Your task to perform on an android device: turn notification dots on Image 0: 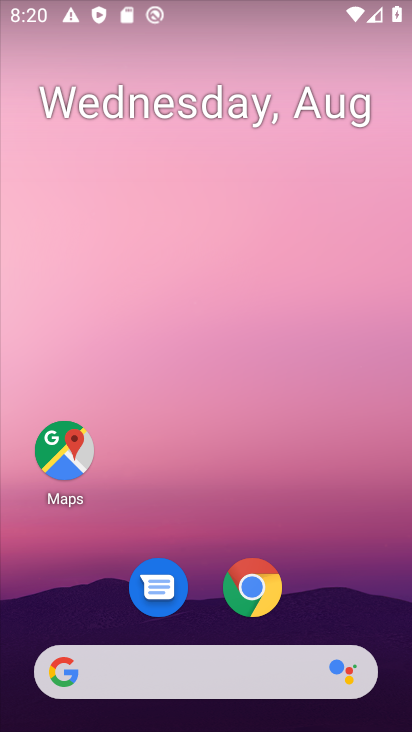
Step 0: drag from (283, 608) to (206, 43)
Your task to perform on an android device: turn notification dots on Image 1: 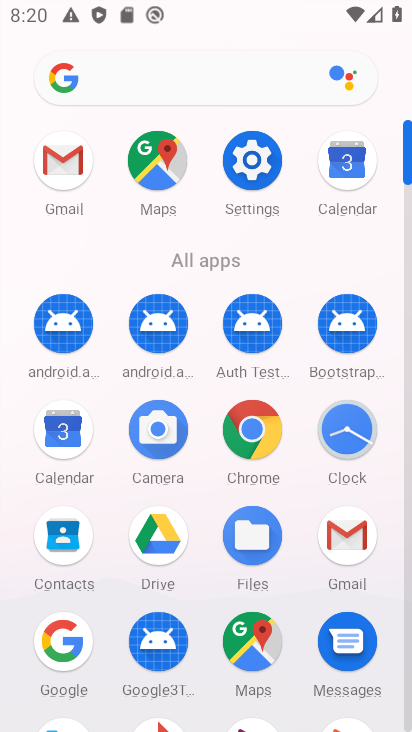
Step 1: click (247, 154)
Your task to perform on an android device: turn notification dots on Image 2: 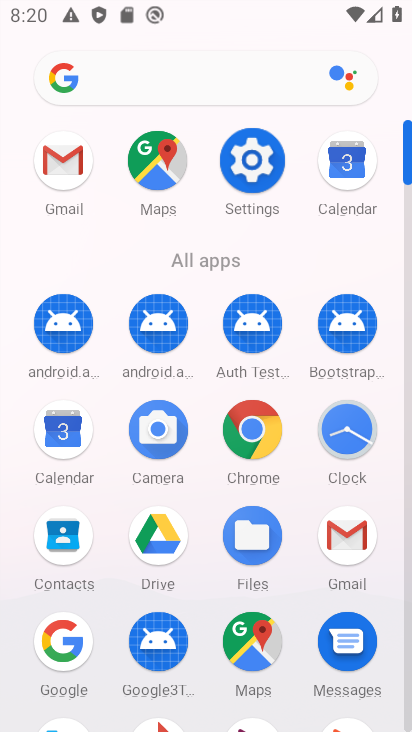
Step 2: click (253, 170)
Your task to perform on an android device: turn notification dots on Image 3: 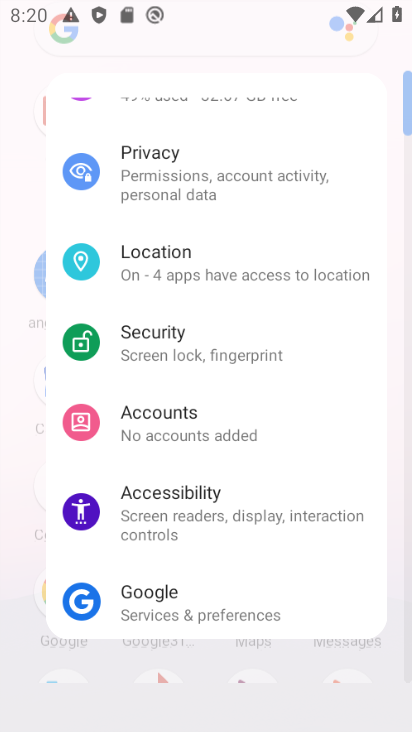
Step 3: click (253, 170)
Your task to perform on an android device: turn notification dots on Image 4: 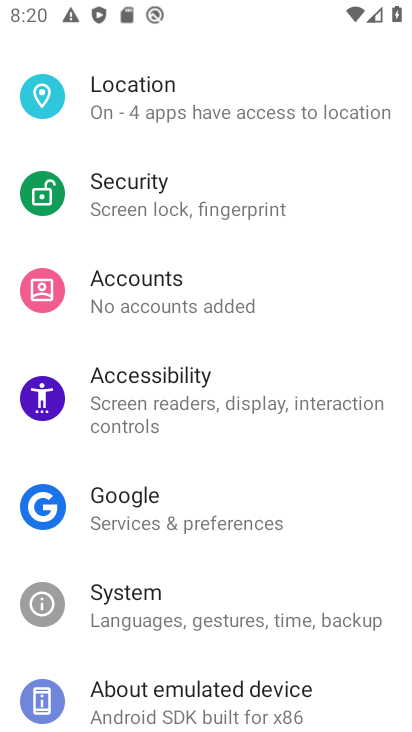
Step 4: click (252, 171)
Your task to perform on an android device: turn notification dots on Image 5: 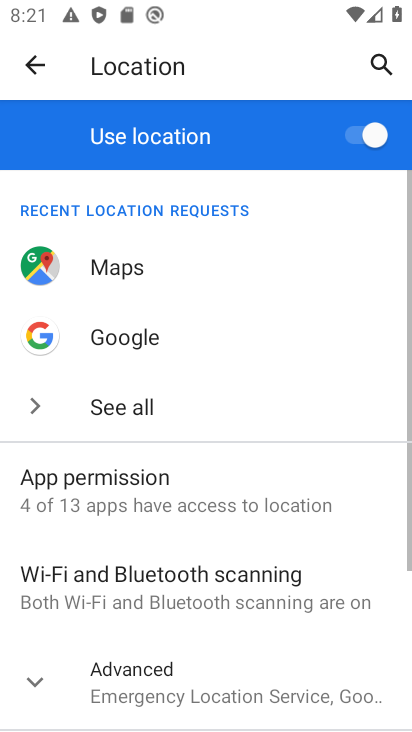
Step 5: drag from (211, 634) to (233, 280)
Your task to perform on an android device: turn notification dots on Image 6: 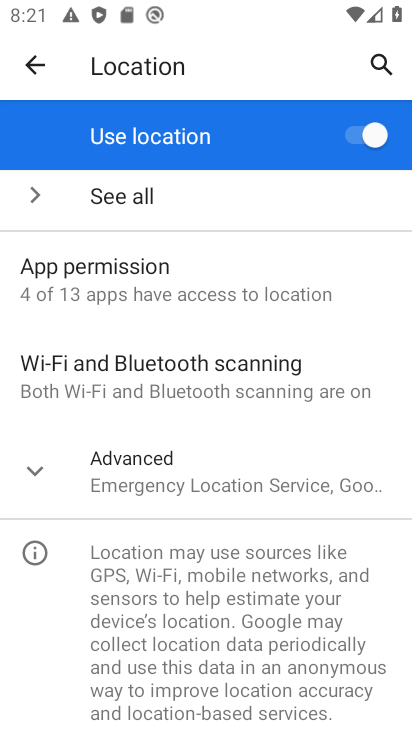
Step 6: click (144, 479)
Your task to perform on an android device: turn notification dots on Image 7: 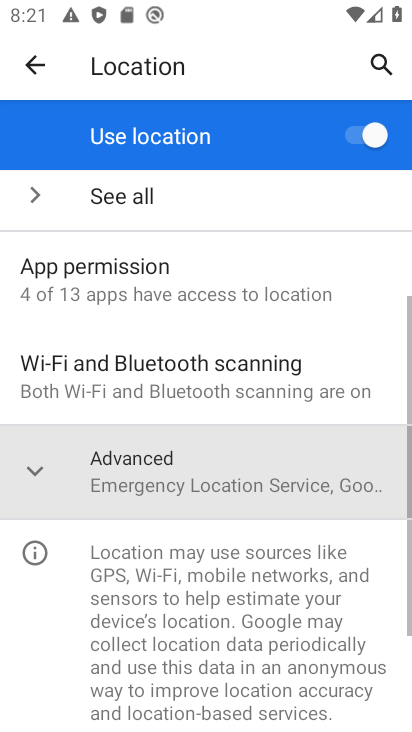
Step 7: click (143, 479)
Your task to perform on an android device: turn notification dots on Image 8: 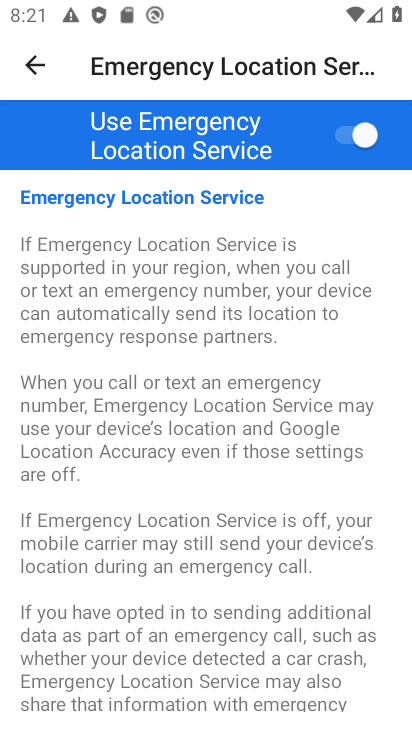
Step 8: click (32, 63)
Your task to perform on an android device: turn notification dots on Image 9: 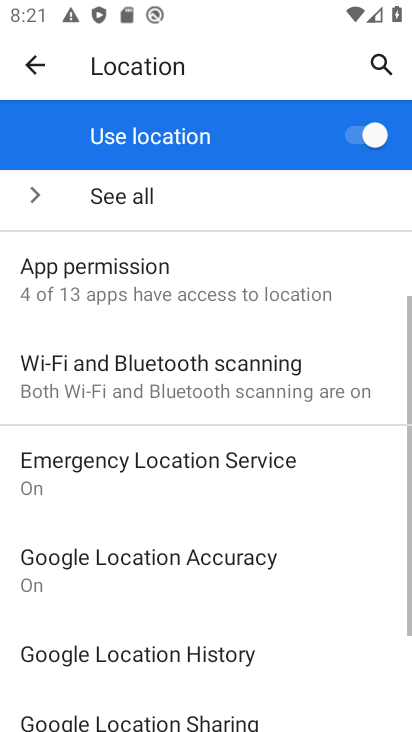
Step 9: drag from (227, 601) to (255, 236)
Your task to perform on an android device: turn notification dots on Image 10: 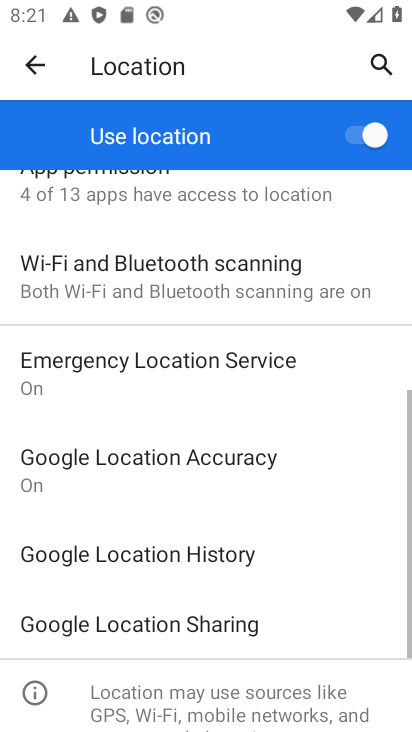
Step 10: drag from (250, 654) to (266, 272)
Your task to perform on an android device: turn notification dots on Image 11: 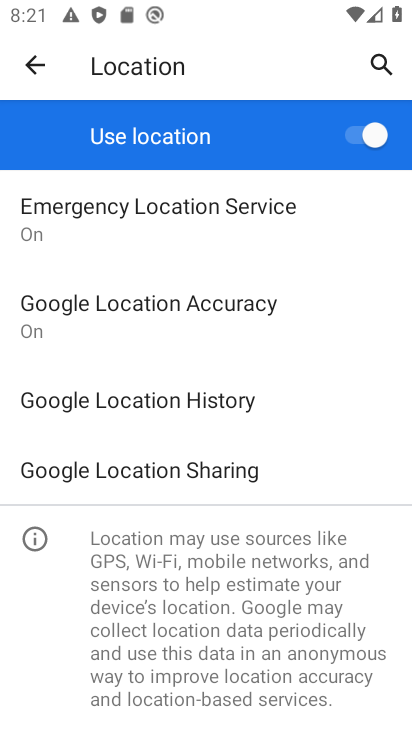
Step 11: drag from (170, 276) to (199, 520)
Your task to perform on an android device: turn notification dots on Image 12: 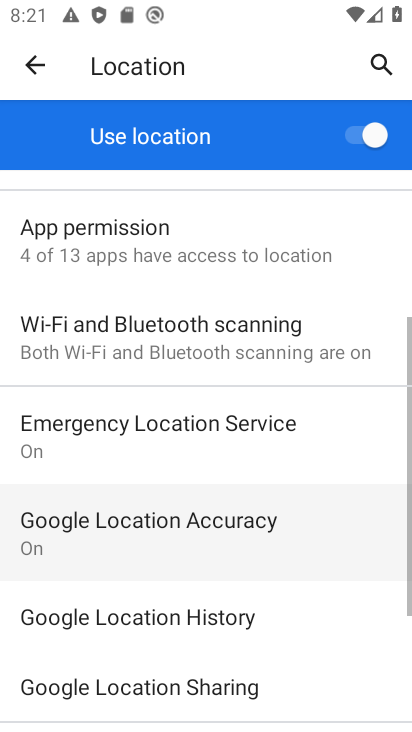
Step 12: drag from (176, 272) to (185, 494)
Your task to perform on an android device: turn notification dots on Image 13: 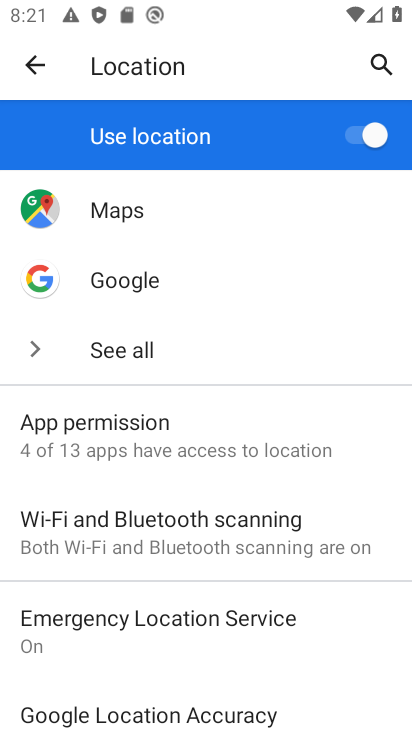
Step 13: click (39, 66)
Your task to perform on an android device: turn notification dots on Image 14: 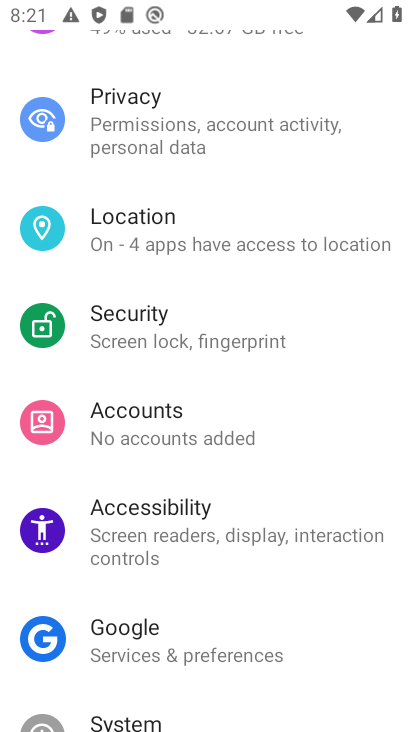
Step 14: drag from (168, 223) to (223, 495)
Your task to perform on an android device: turn notification dots on Image 15: 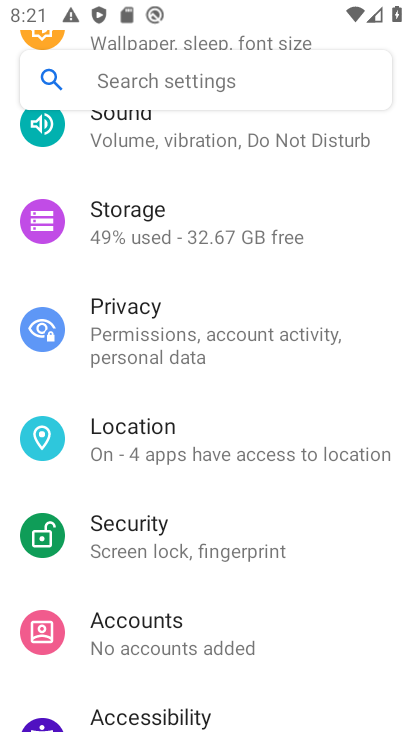
Step 15: drag from (134, 171) to (147, 457)
Your task to perform on an android device: turn notification dots on Image 16: 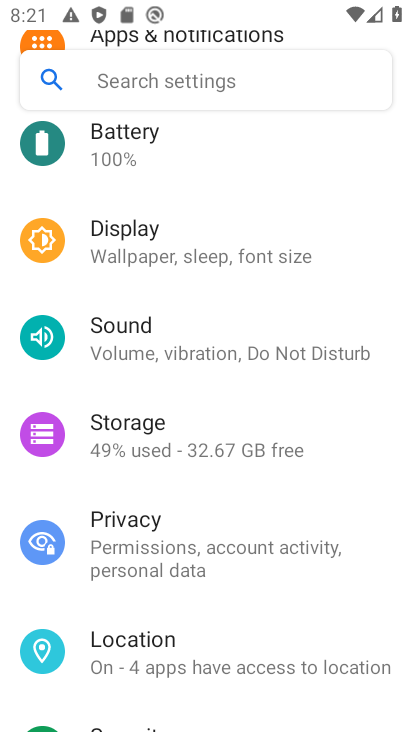
Step 16: drag from (145, 212) to (191, 488)
Your task to perform on an android device: turn notification dots on Image 17: 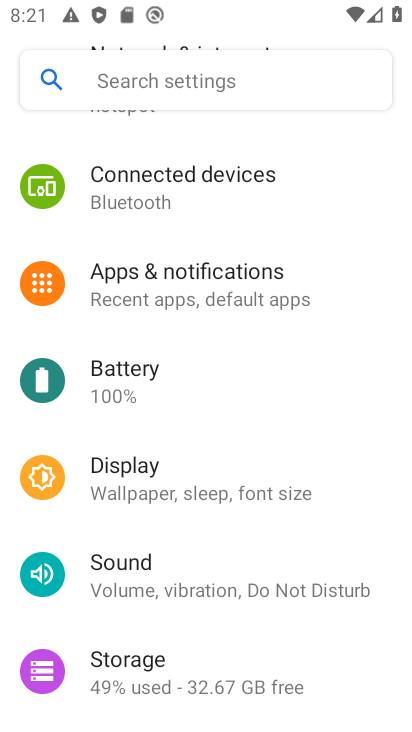
Step 17: drag from (133, 241) to (196, 584)
Your task to perform on an android device: turn notification dots on Image 18: 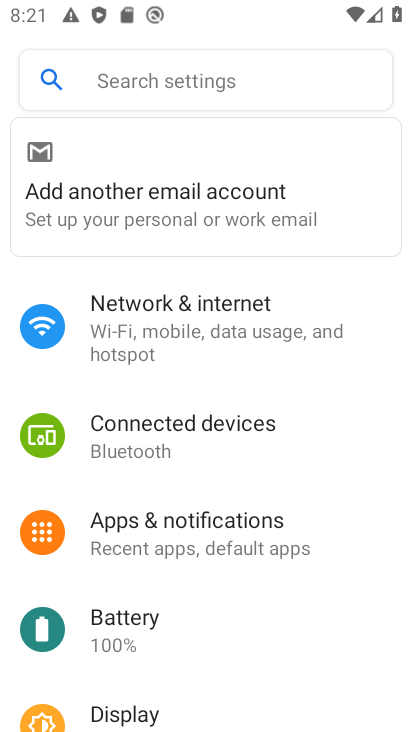
Step 18: drag from (160, 290) to (217, 559)
Your task to perform on an android device: turn notification dots on Image 19: 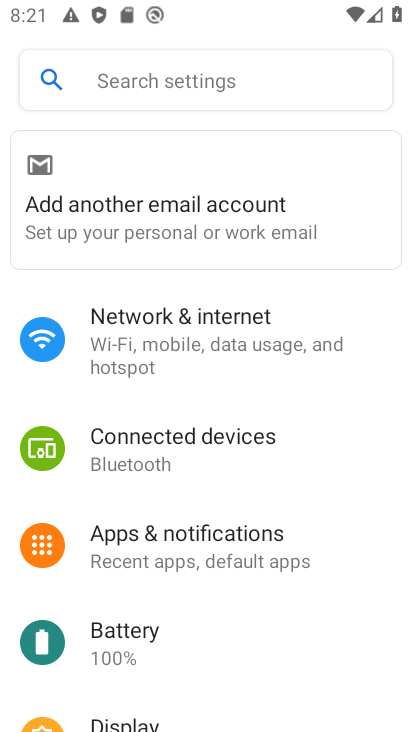
Step 19: click (216, 575)
Your task to perform on an android device: turn notification dots on Image 20: 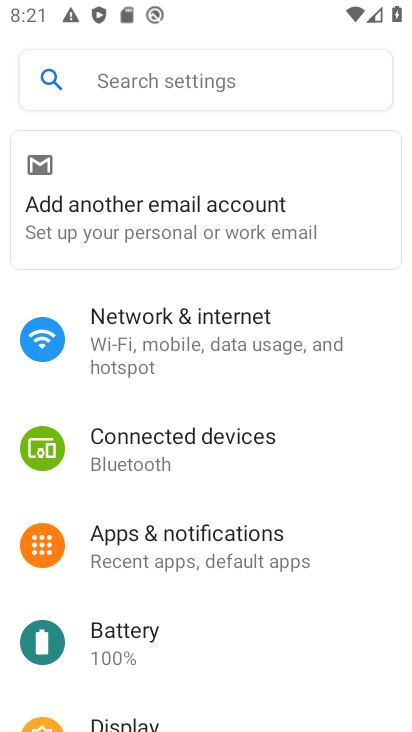
Step 20: drag from (156, 216) to (217, 565)
Your task to perform on an android device: turn notification dots on Image 21: 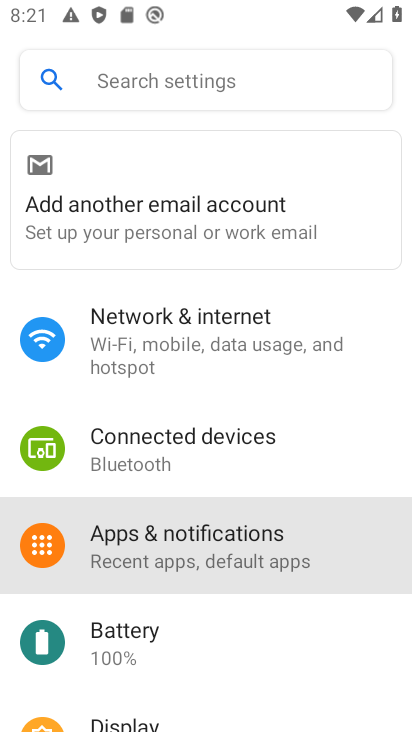
Step 21: drag from (237, 244) to (254, 573)
Your task to perform on an android device: turn notification dots on Image 22: 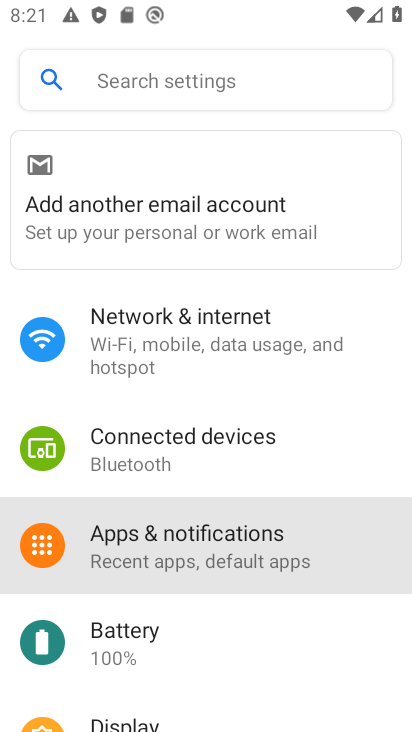
Step 22: drag from (174, 212) to (181, 565)
Your task to perform on an android device: turn notification dots on Image 23: 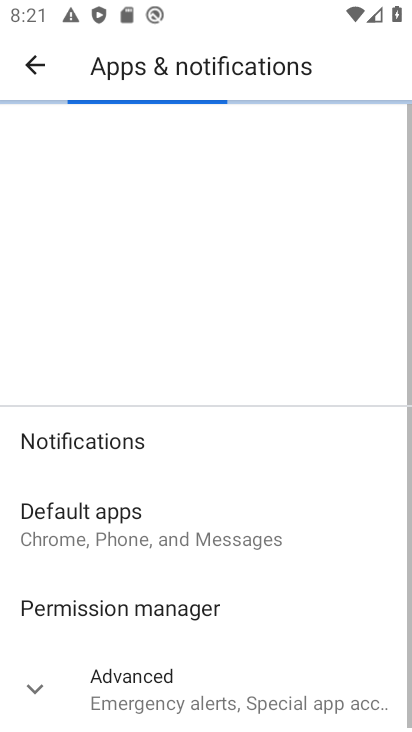
Step 23: drag from (147, 199) to (170, 470)
Your task to perform on an android device: turn notification dots on Image 24: 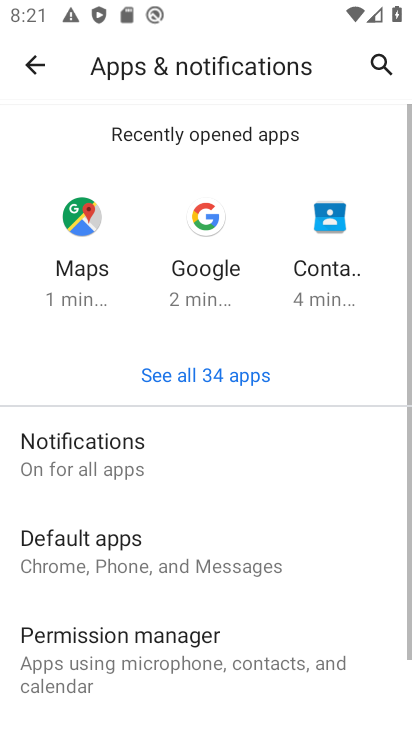
Step 24: click (90, 457)
Your task to perform on an android device: turn notification dots on Image 25: 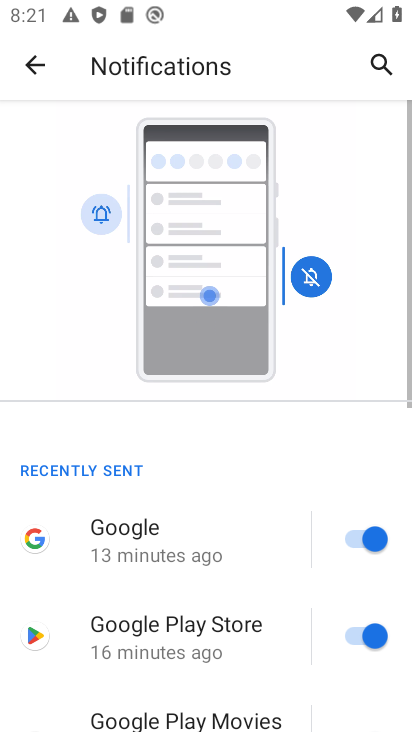
Step 25: drag from (183, 619) to (153, 215)
Your task to perform on an android device: turn notification dots on Image 26: 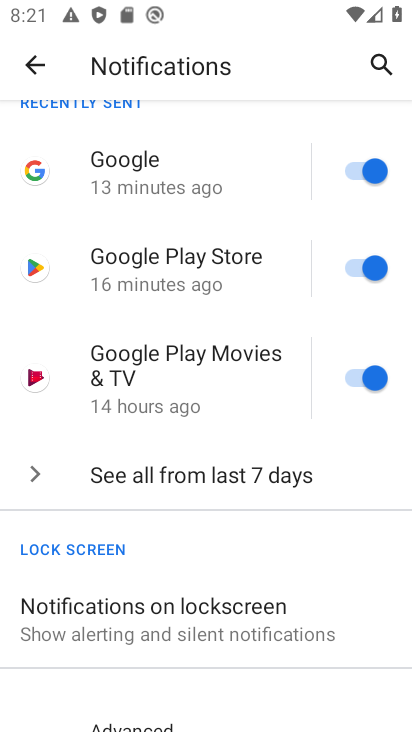
Step 26: drag from (226, 552) to (182, 220)
Your task to perform on an android device: turn notification dots on Image 27: 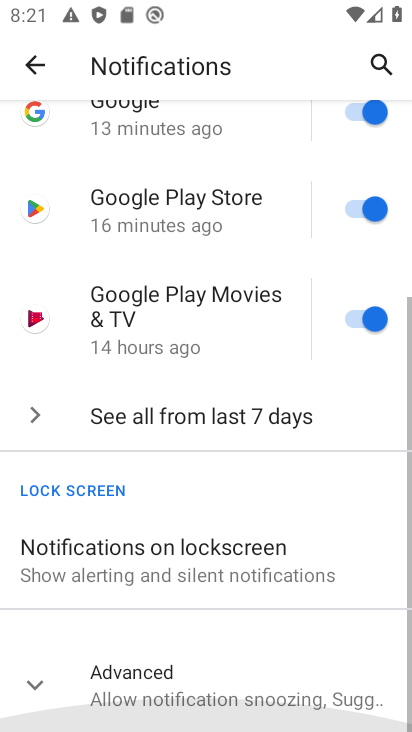
Step 27: drag from (275, 585) to (251, 292)
Your task to perform on an android device: turn notification dots on Image 28: 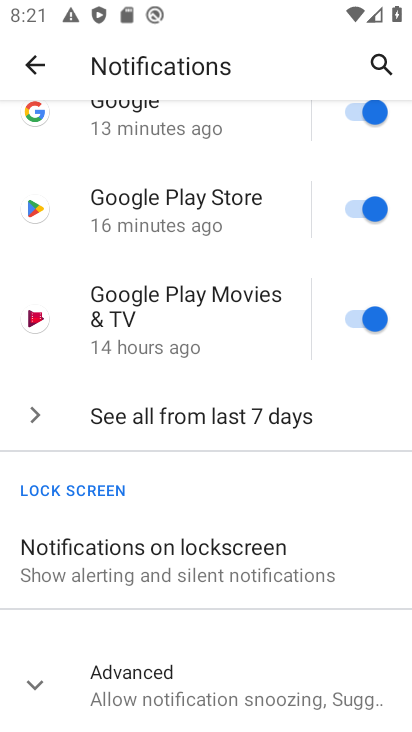
Step 28: click (157, 693)
Your task to perform on an android device: turn notification dots on Image 29: 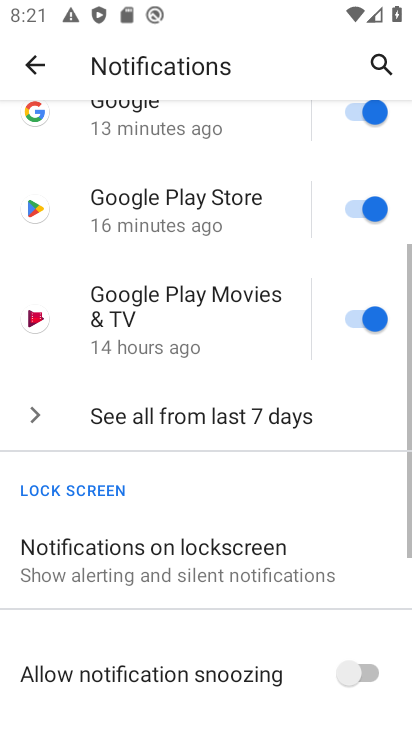
Step 29: drag from (281, 532) to (247, 295)
Your task to perform on an android device: turn notification dots on Image 30: 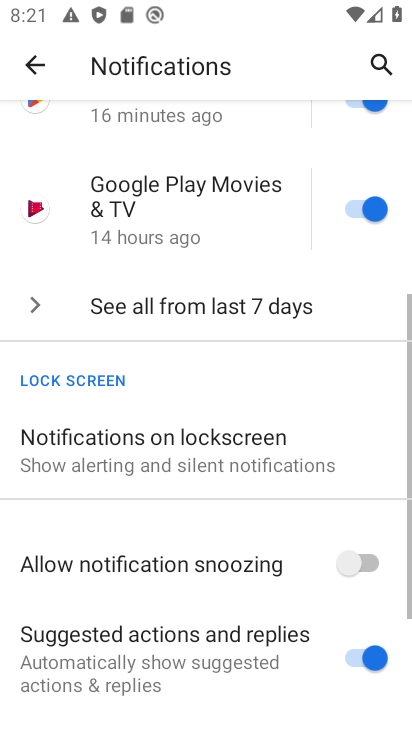
Step 30: drag from (283, 483) to (238, 24)
Your task to perform on an android device: turn notification dots on Image 31: 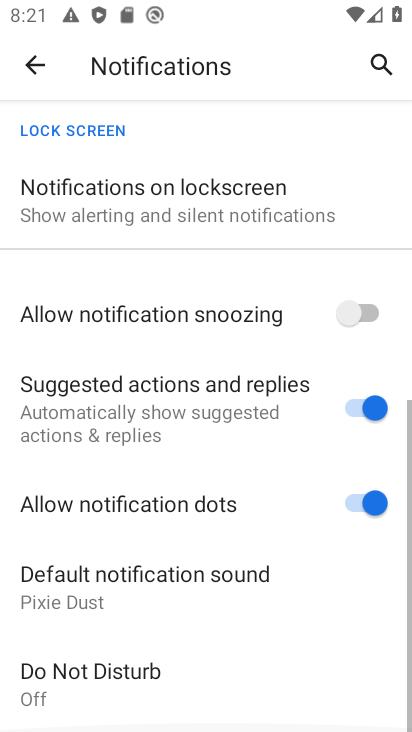
Step 31: click (241, 224)
Your task to perform on an android device: turn notification dots on Image 32: 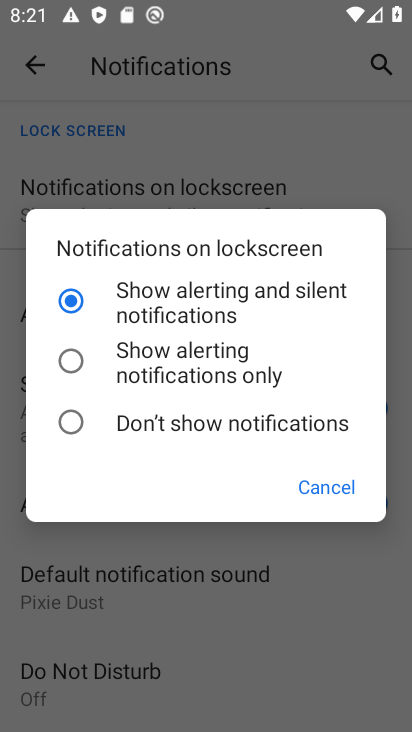
Step 32: click (360, 496)
Your task to perform on an android device: turn notification dots on Image 33: 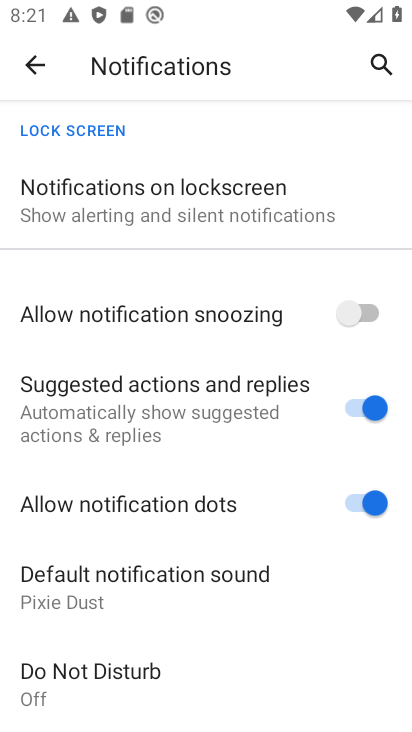
Step 33: task complete